Your task to perform on an android device: Open Google Chrome and open the bookmarks view Image 0: 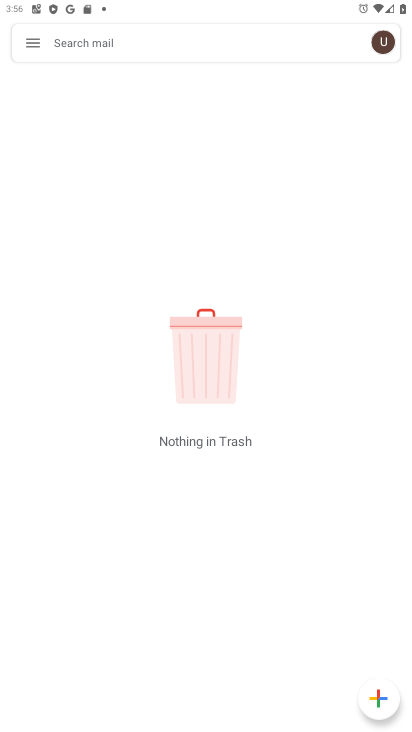
Step 0: press home button
Your task to perform on an android device: Open Google Chrome and open the bookmarks view Image 1: 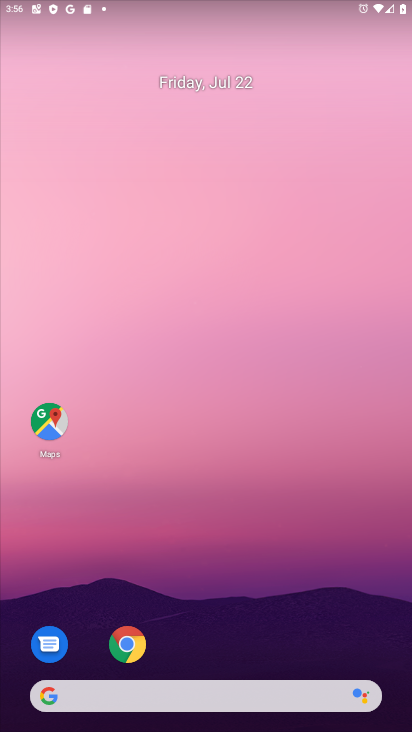
Step 1: click (141, 648)
Your task to perform on an android device: Open Google Chrome and open the bookmarks view Image 2: 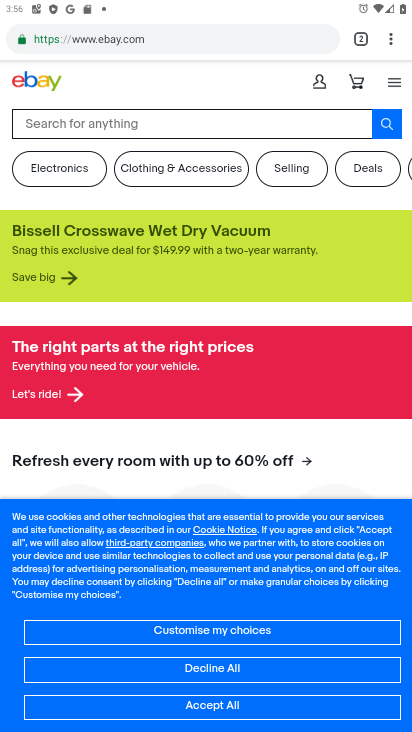
Step 2: click (361, 35)
Your task to perform on an android device: Open Google Chrome and open the bookmarks view Image 3: 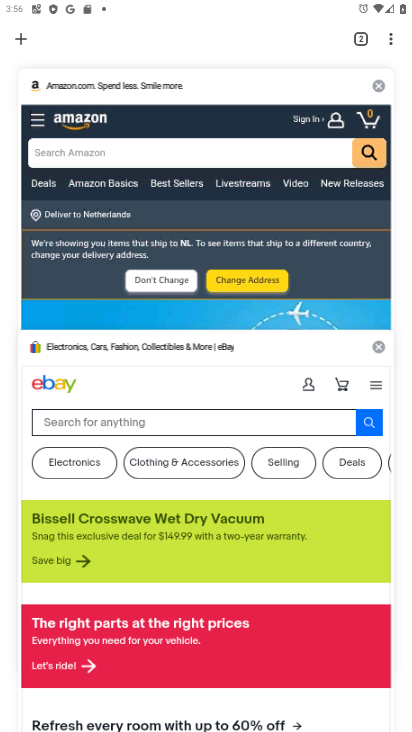
Step 3: click (24, 42)
Your task to perform on an android device: Open Google Chrome and open the bookmarks view Image 4: 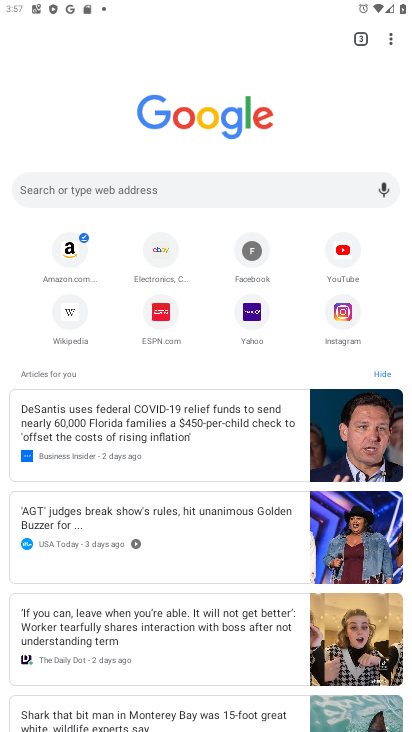
Step 4: click (400, 44)
Your task to perform on an android device: Open Google Chrome and open the bookmarks view Image 5: 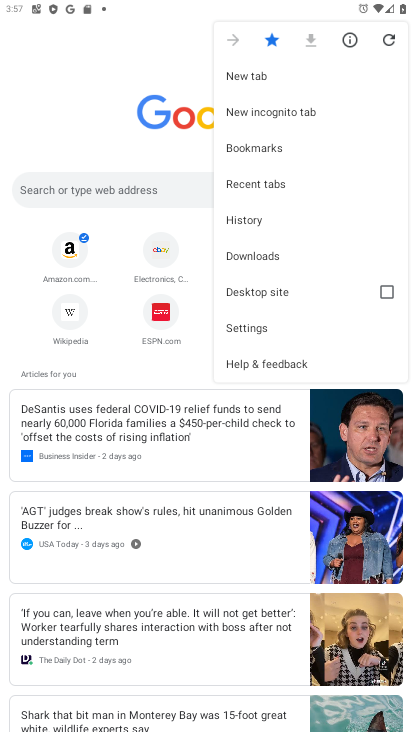
Step 5: click (279, 151)
Your task to perform on an android device: Open Google Chrome and open the bookmarks view Image 6: 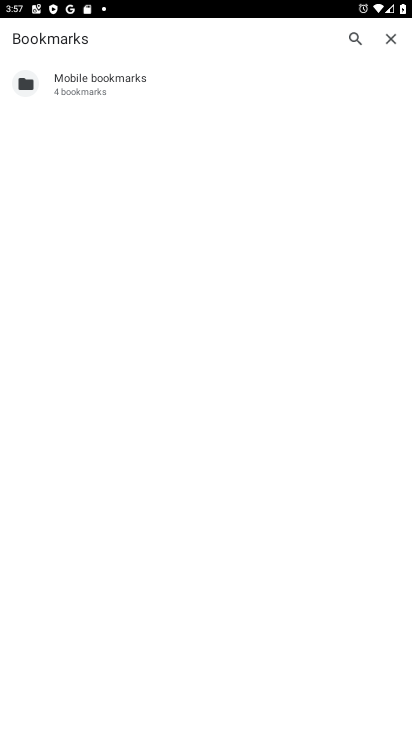
Step 6: task complete